Your task to perform on an android device: Open calendar and show me the third week of next month Image 0: 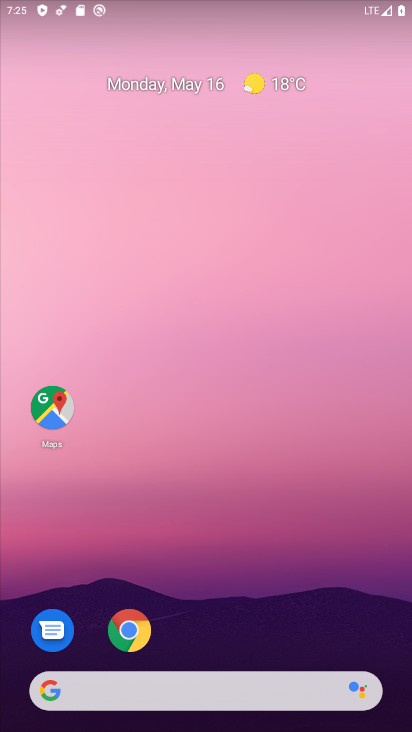
Step 0: drag from (271, 607) to (190, 133)
Your task to perform on an android device: Open calendar and show me the third week of next month Image 1: 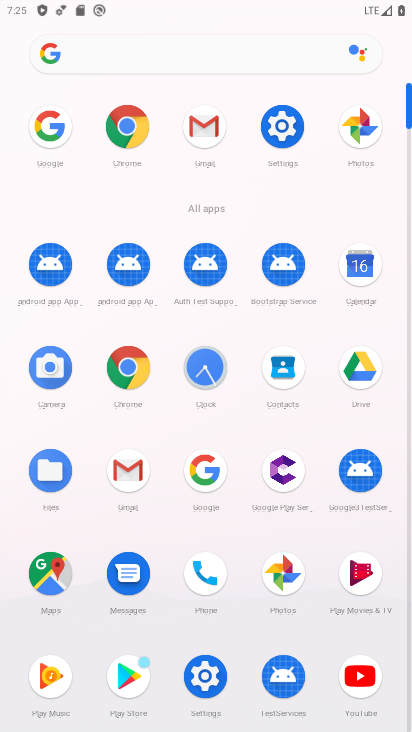
Step 1: click (363, 263)
Your task to perform on an android device: Open calendar and show me the third week of next month Image 2: 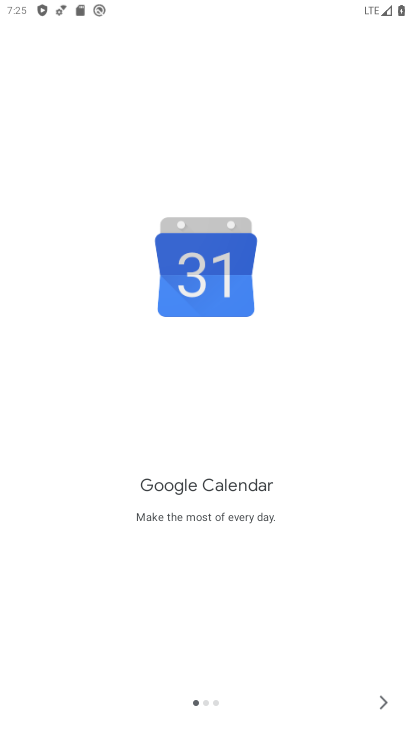
Step 2: click (385, 702)
Your task to perform on an android device: Open calendar and show me the third week of next month Image 3: 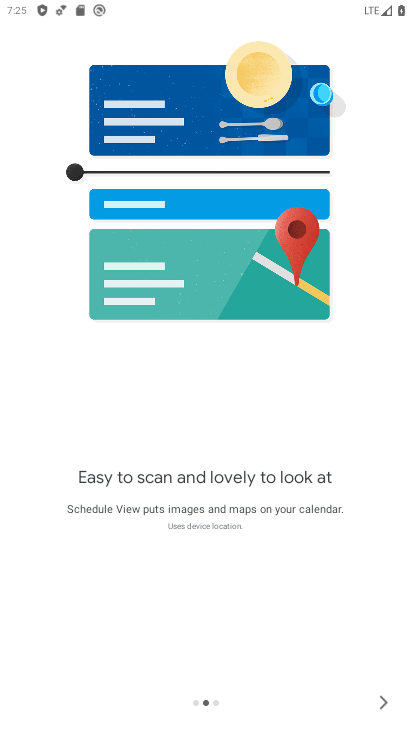
Step 3: click (385, 702)
Your task to perform on an android device: Open calendar and show me the third week of next month Image 4: 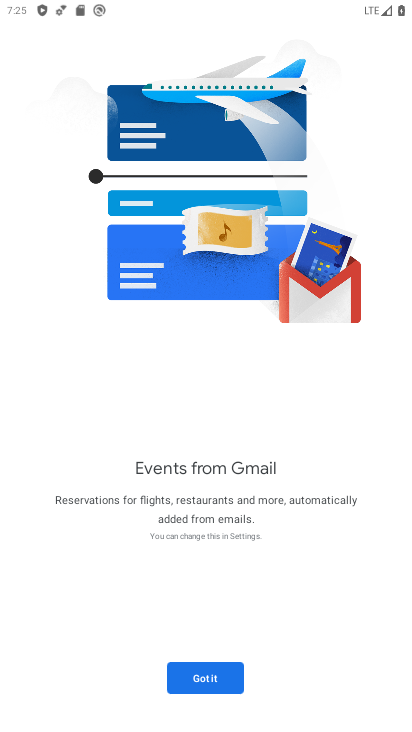
Step 4: click (208, 684)
Your task to perform on an android device: Open calendar and show me the third week of next month Image 5: 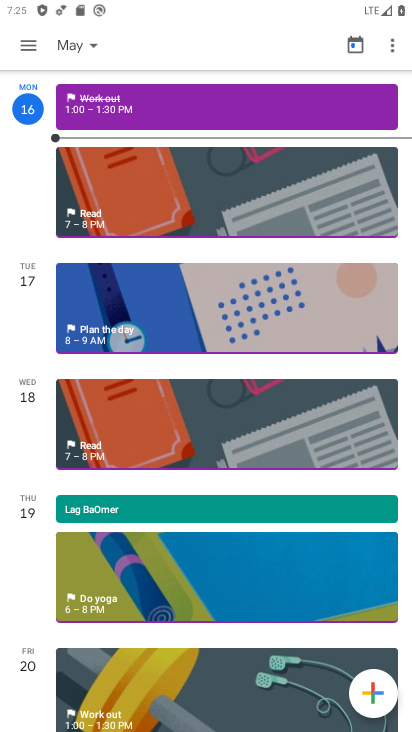
Step 5: click (93, 44)
Your task to perform on an android device: Open calendar and show me the third week of next month Image 6: 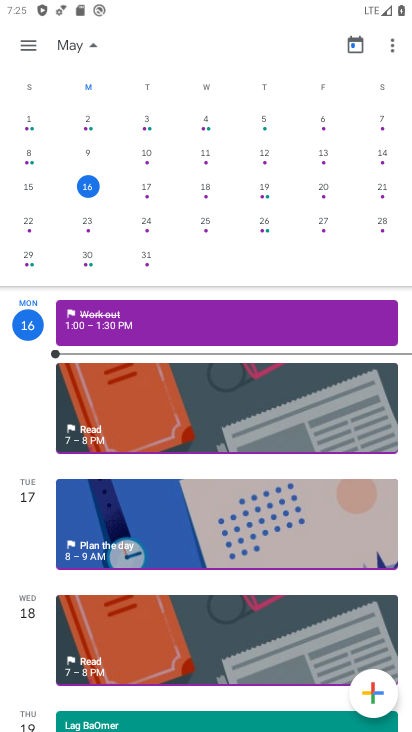
Step 6: drag from (361, 196) to (2, 229)
Your task to perform on an android device: Open calendar and show me the third week of next month Image 7: 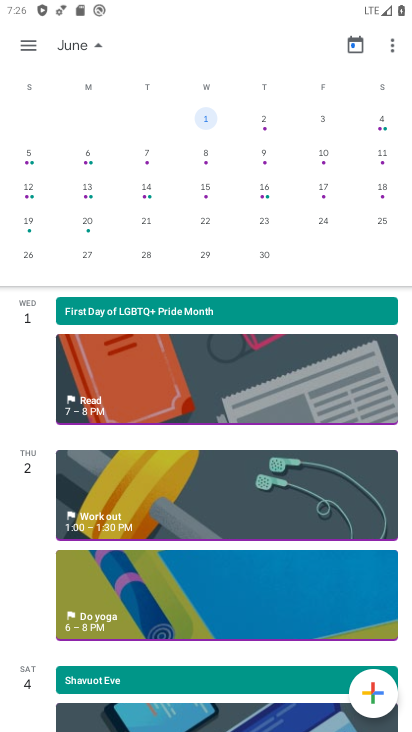
Step 7: click (89, 222)
Your task to perform on an android device: Open calendar and show me the third week of next month Image 8: 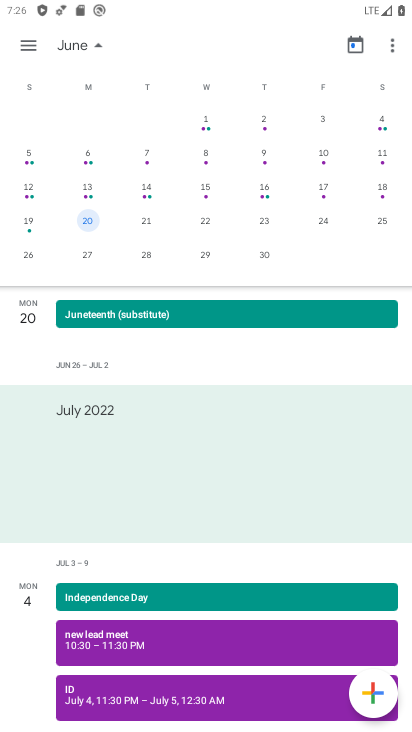
Step 8: click (29, 48)
Your task to perform on an android device: Open calendar and show me the third week of next month Image 9: 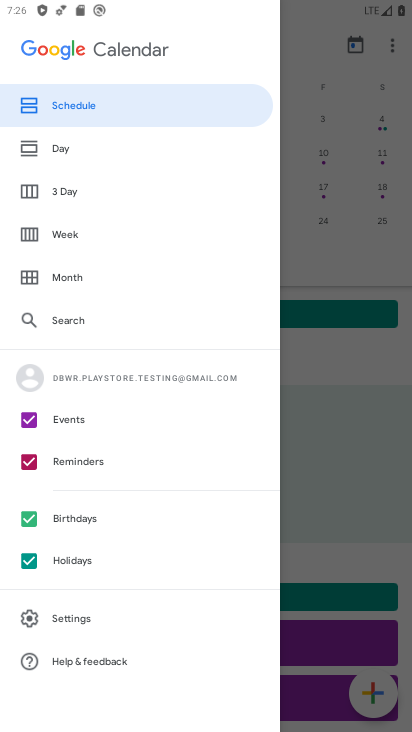
Step 9: click (73, 234)
Your task to perform on an android device: Open calendar and show me the third week of next month Image 10: 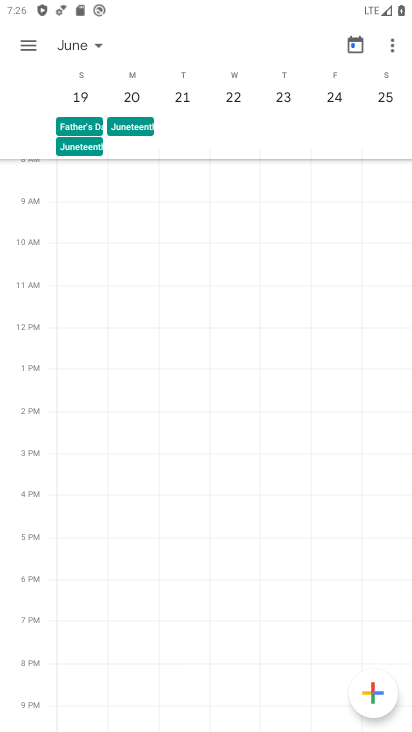
Step 10: task complete